Your task to perform on an android device: Open CNN.com Image 0: 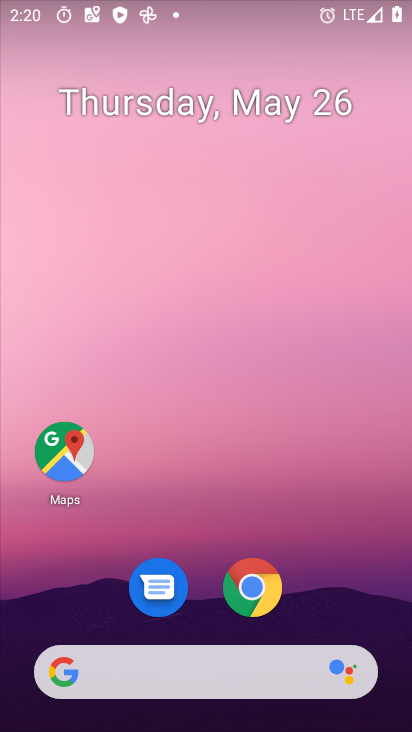
Step 0: drag from (389, 598) to (382, 336)
Your task to perform on an android device: Open CNN.com Image 1: 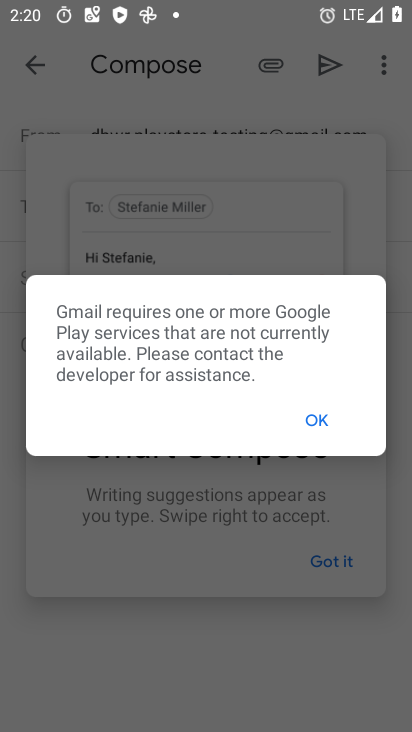
Step 1: press home button
Your task to perform on an android device: Open CNN.com Image 2: 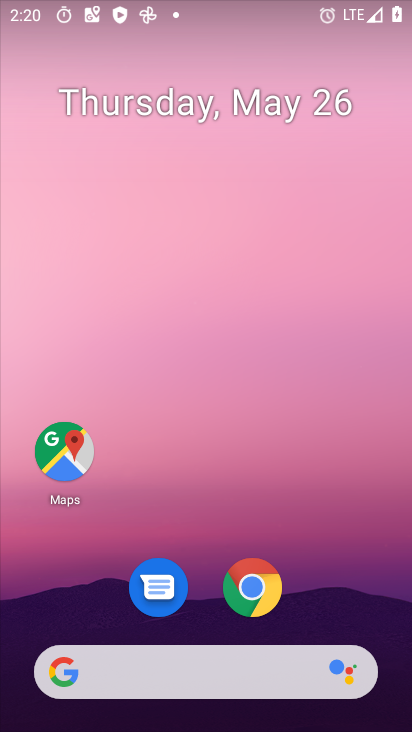
Step 2: drag from (366, 613) to (378, 193)
Your task to perform on an android device: Open CNN.com Image 3: 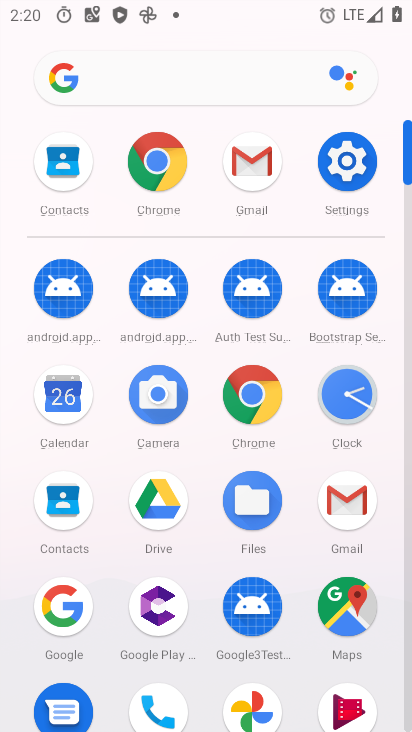
Step 3: click (257, 424)
Your task to perform on an android device: Open CNN.com Image 4: 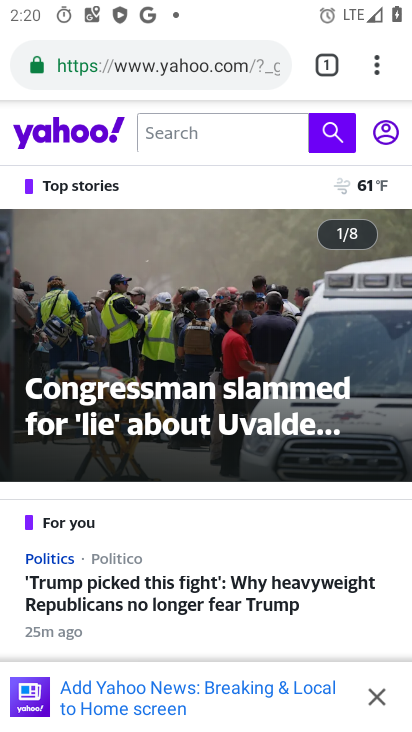
Step 4: click (228, 70)
Your task to perform on an android device: Open CNN.com Image 5: 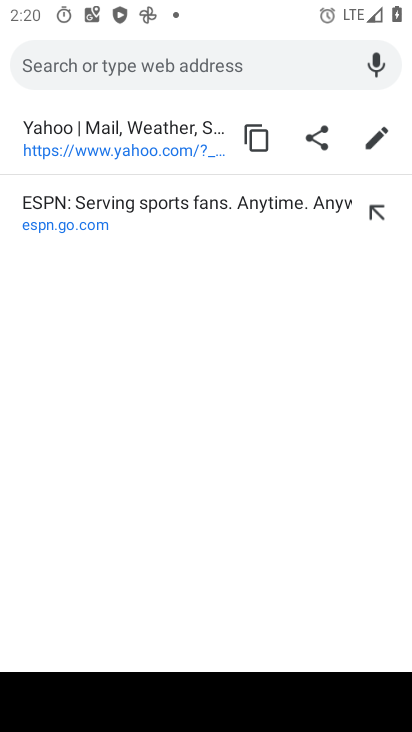
Step 5: type "cnn.com"
Your task to perform on an android device: Open CNN.com Image 6: 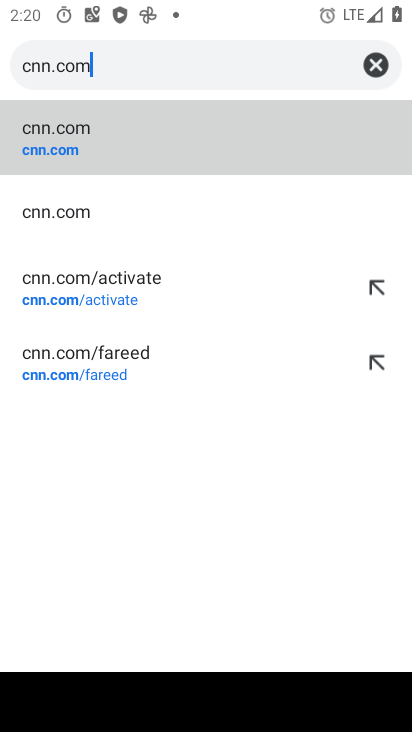
Step 6: click (184, 150)
Your task to perform on an android device: Open CNN.com Image 7: 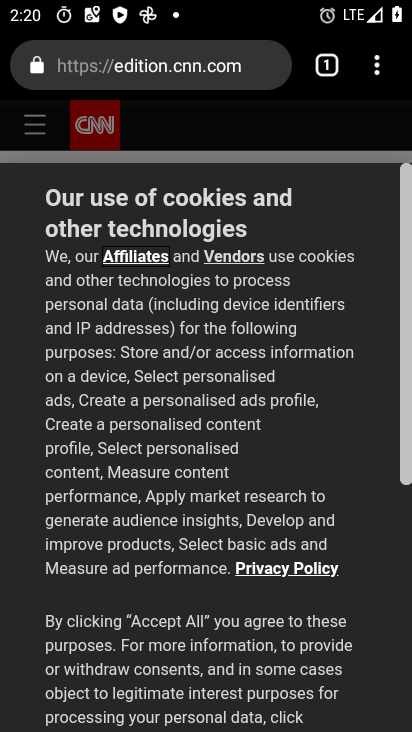
Step 7: task complete